Your task to perform on an android device: Open battery settings Image 0: 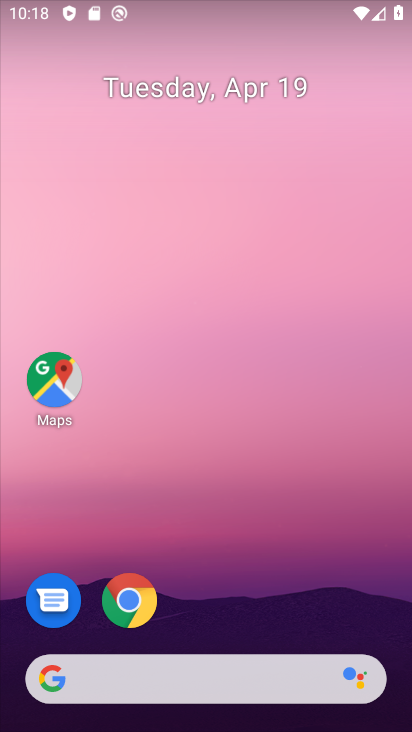
Step 0: drag from (218, 621) to (280, 14)
Your task to perform on an android device: Open battery settings Image 1: 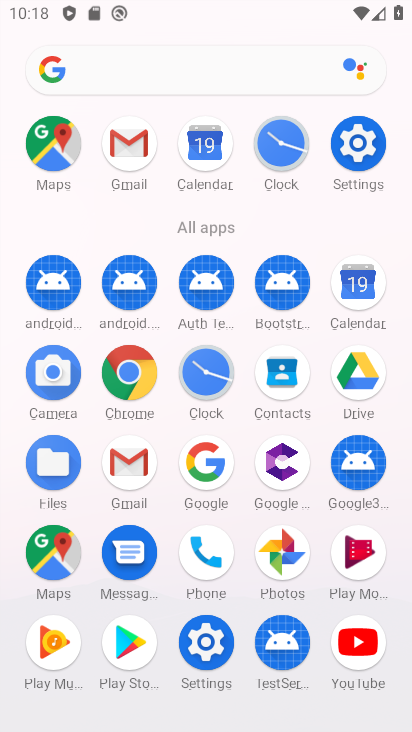
Step 1: click (204, 647)
Your task to perform on an android device: Open battery settings Image 2: 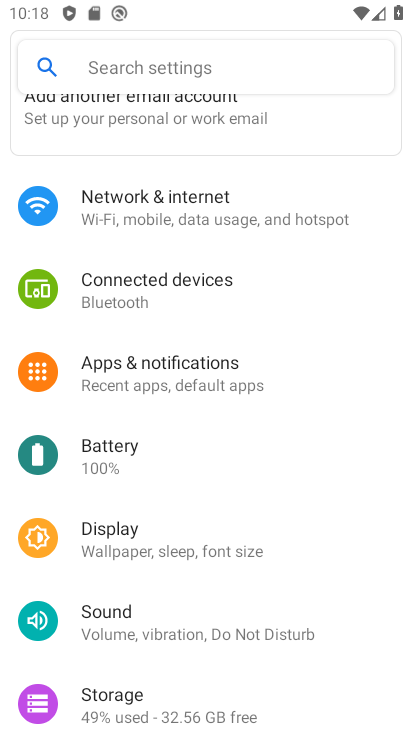
Step 2: click (126, 453)
Your task to perform on an android device: Open battery settings Image 3: 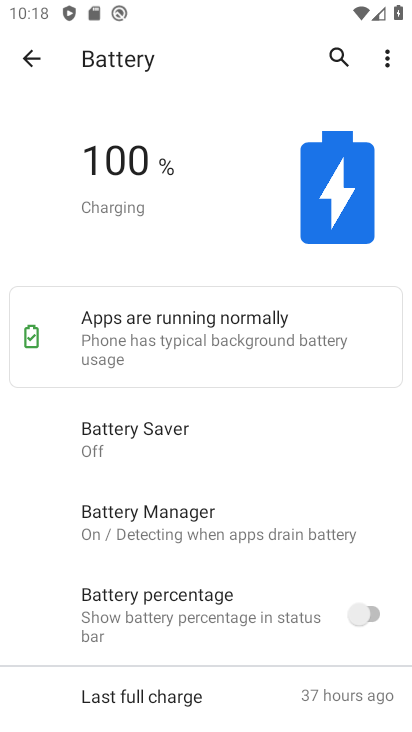
Step 3: task complete